Your task to perform on an android device: toggle wifi Image 0: 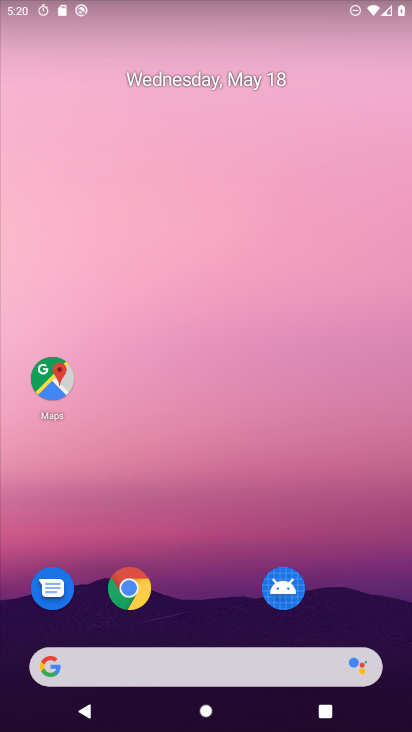
Step 0: drag from (165, 3) to (161, 460)
Your task to perform on an android device: toggle wifi Image 1: 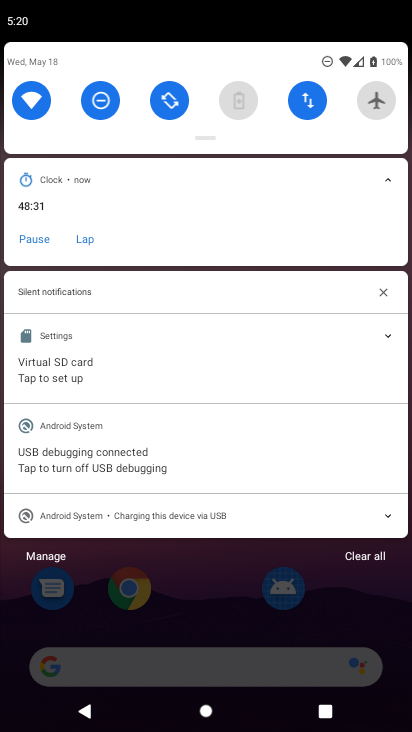
Step 1: click (19, 98)
Your task to perform on an android device: toggle wifi Image 2: 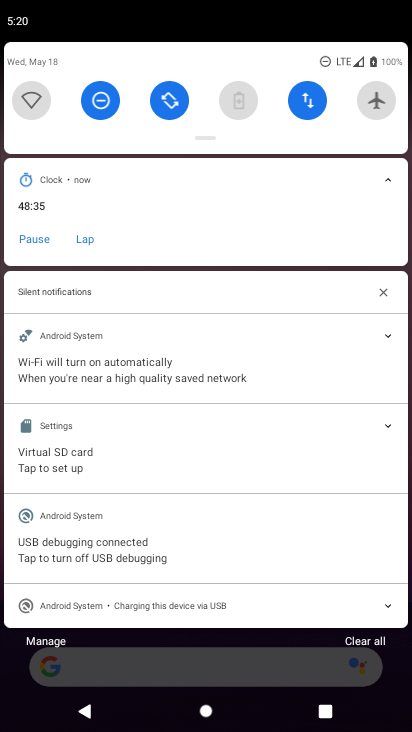
Step 2: task complete